Your task to perform on an android device: turn vacation reply on in the gmail app Image 0: 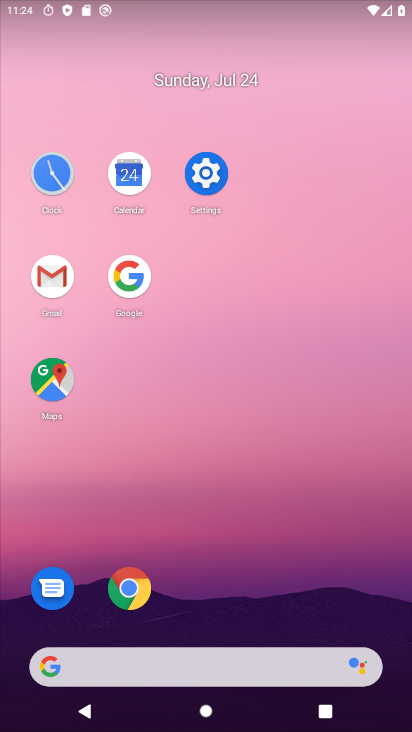
Step 0: click (57, 276)
Your task to perform on an android device: turn vacation reply on in the gmail app Image 1: 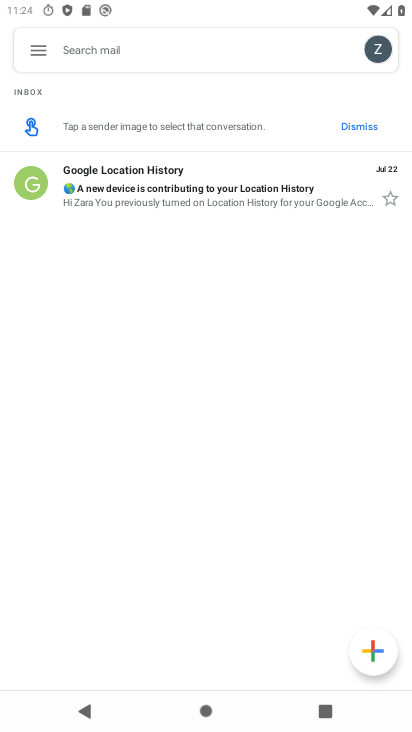
Step 1: click (38, 46)
Your task to perform on an android device: turn vacation reply on in the gmail app Image 2: 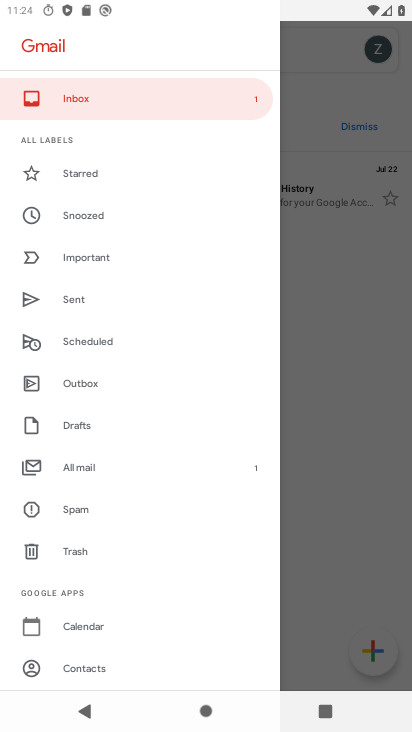
Step 2: drag from (122, 574) to (136, 237)
Your task to perform on an android device: turn vacation reply on in the gmail app Image 3: 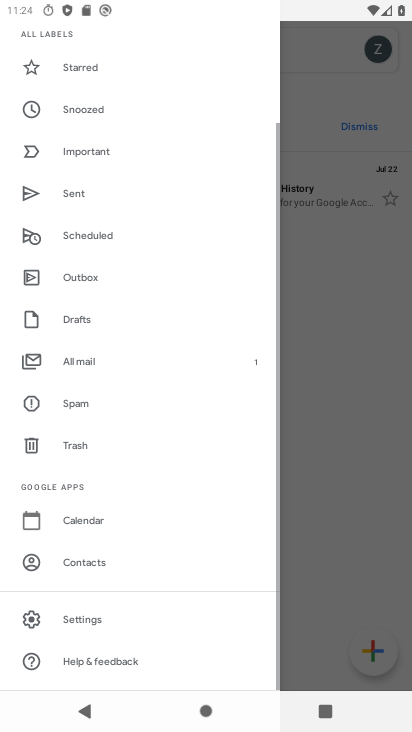
Step 3: click (108, 606)
Your task to perform on an android device: turn vacation reply on in the gmail app Image 4: 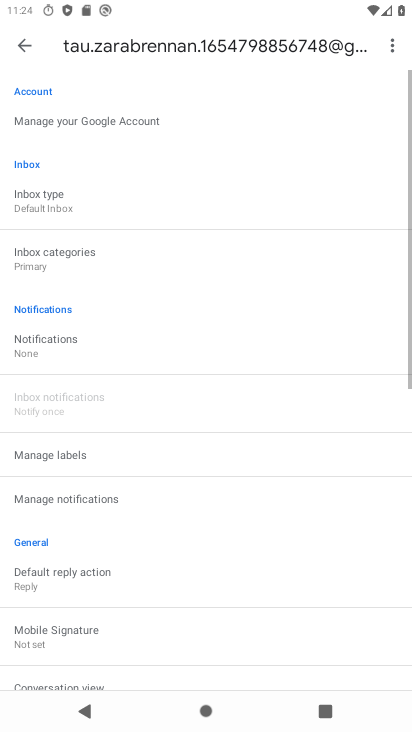
Step 4: task complete